Your task to perform on an android device: Open Chrome and go to settings Image 0: 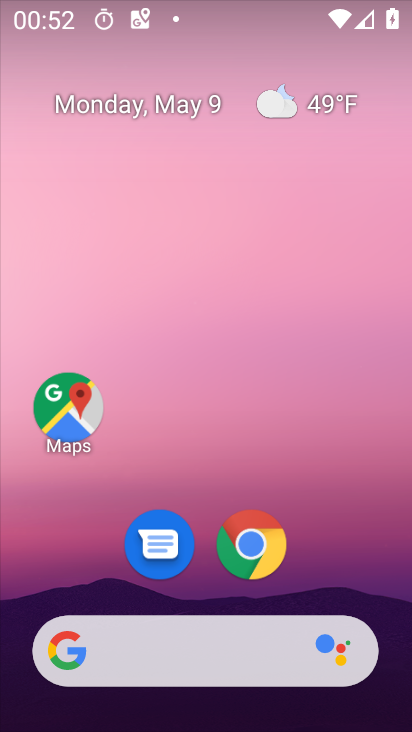
Step 0: drag from (311, 602) to (286, 4)
Your task to perform on an android device: Open Chrome and go to settings Image 1: 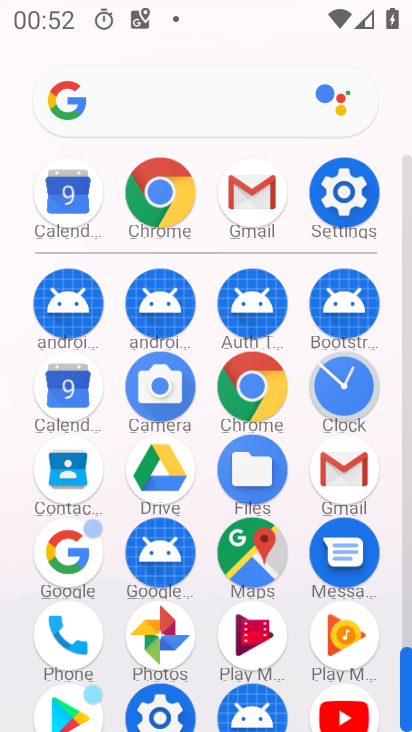
Step 1: click (263, 406)
Your task to perform on an android device: Open Chrome and go to settings Image 2: 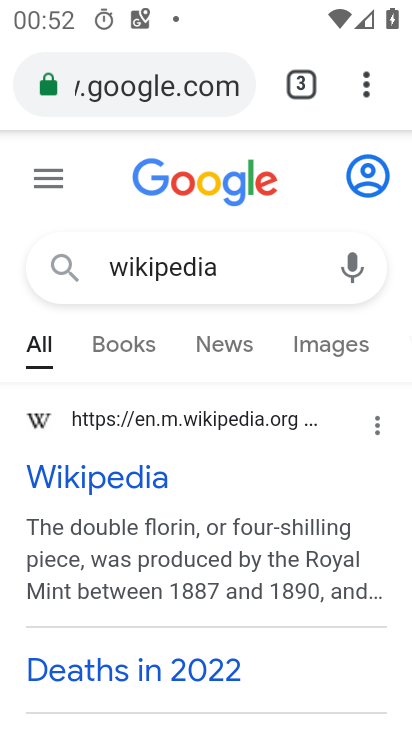
Step 2: task complete